Your task to perform on an android device: Open calendar and show me the second week of next month Image 0: 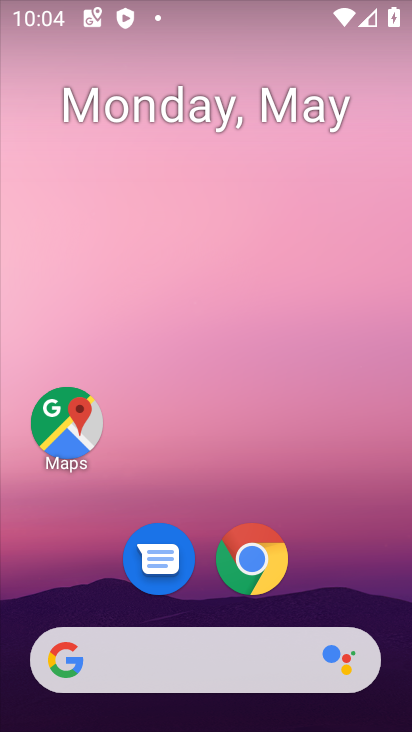
Step 0: drag from (357, 557) to (195, 125)
Your task to perform on an android device: Open calendar and show me the second week of next month Image 1: 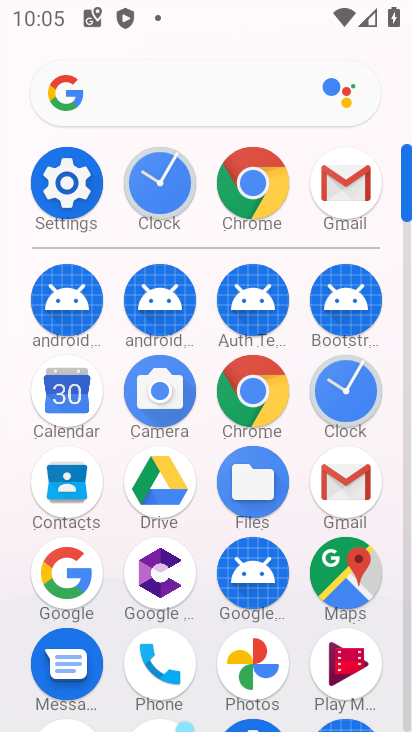
Step 1: click (56, 395)
Your task to perform on an android device: Open calendar and show me the second week of next month Image 2: 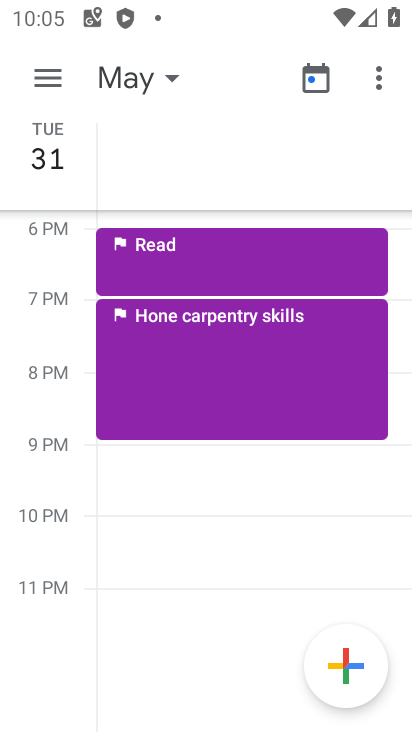
Step 2: click (52, 80)
Your task to perform on an android device: Open calendar and show me the second week of next month Image 3: 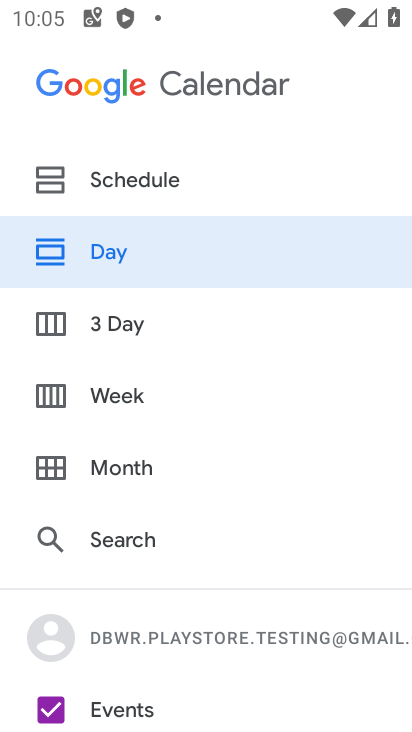
Step 3: click (117, 385)
Your task to perform on an android device: Open calendar and show me the second week of next month Image 4: 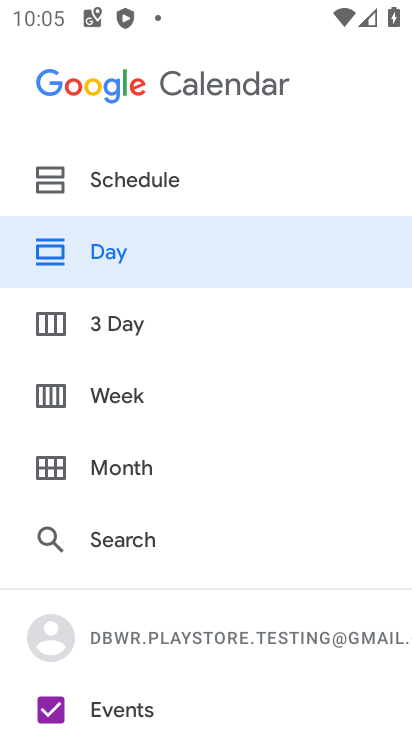
Step 4: click (115, 393)
Your task to perform on an android device: Open calendar and show me the second week of next month Image 5: 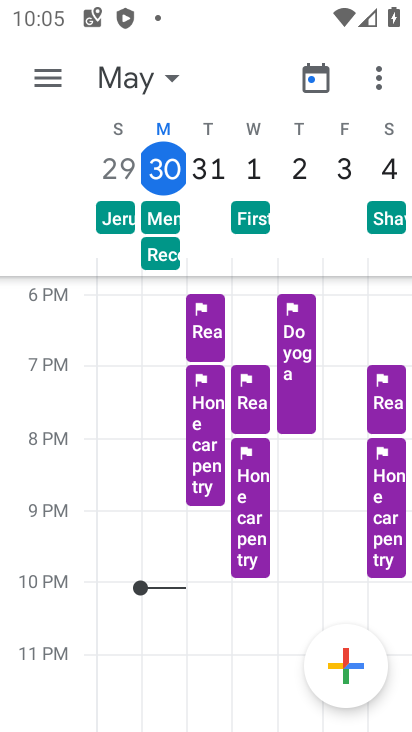
Step 5: click (172, 76)
Your task to perform on an android device: Open calendar and show me the second week of next month Image 6: 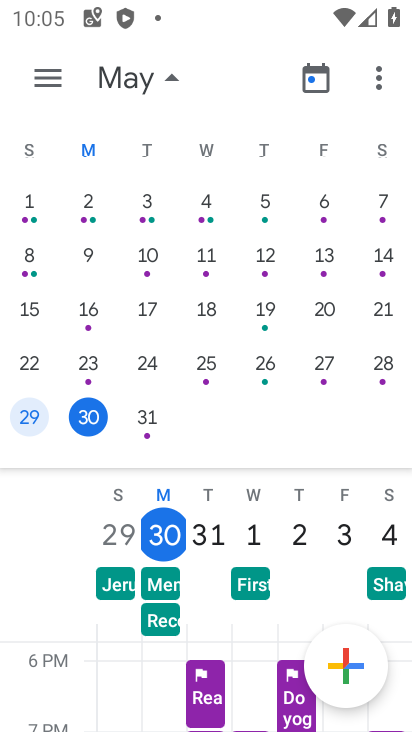
Step 6: drag from (341, 270) to (15, 263)
Your task to perform on an android device: Open calendar and show me the second week of next month Image 7: 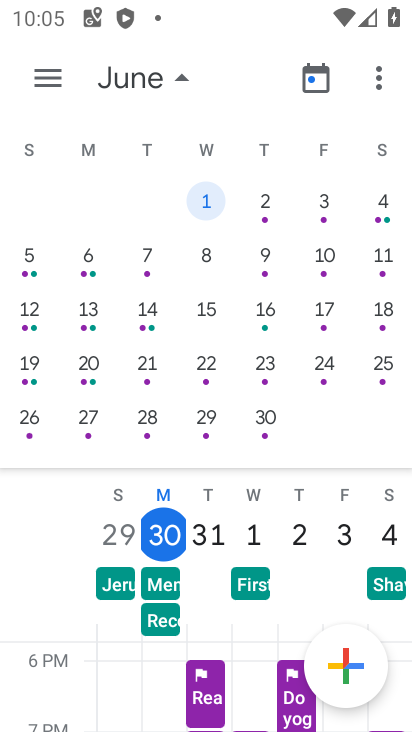
Step 7: click (205, 251)
Your task to perform on an android device: Open calendar and show me the second week of next month Image 8: 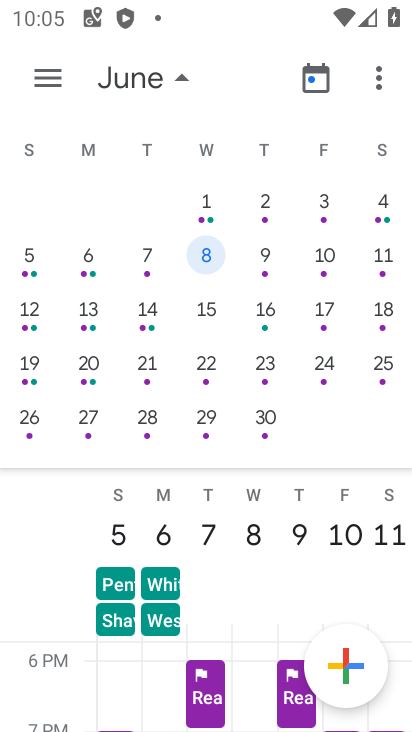
Step 8: task complete